Your task to perform on an android device: check out phone information Image 0: 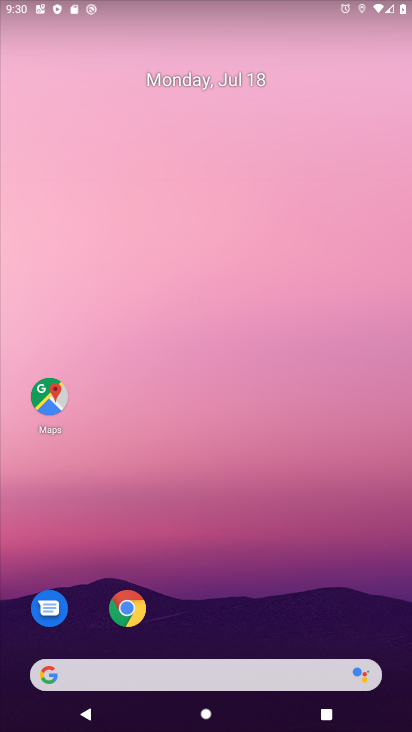
Step 0: drag from (88, 565) to (246, 228)
Your task to perform on an android device: check out phone information Image 1: 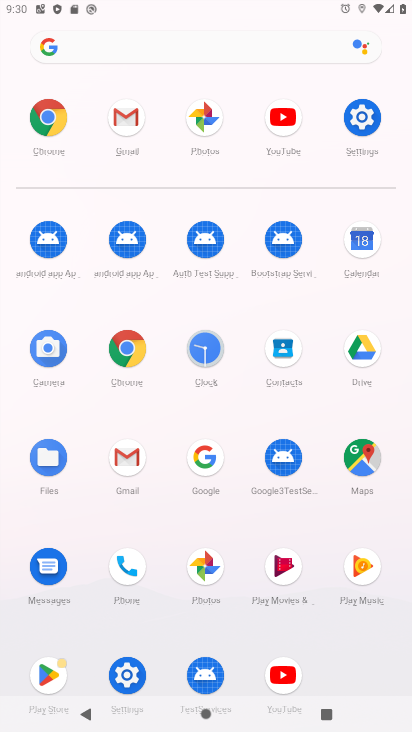
Step 1: click (285, 359)
Your task to perform on an android device: check out phone information Image 2: 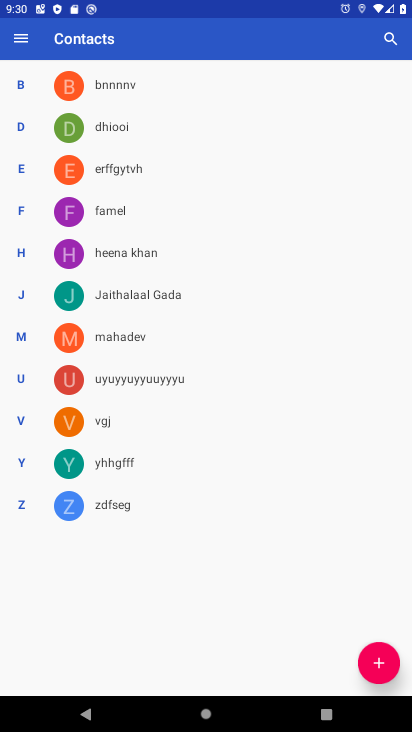
Step 2: task complete